Your task to perform on an android device: set an alarm Image 0: 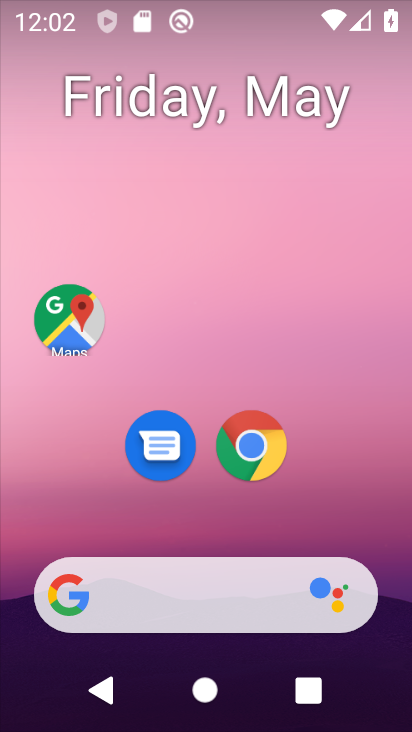
Step 0: drag from (391, 416) to (405, 7)
Your task to perform on an android device: set an alarm Image 1: 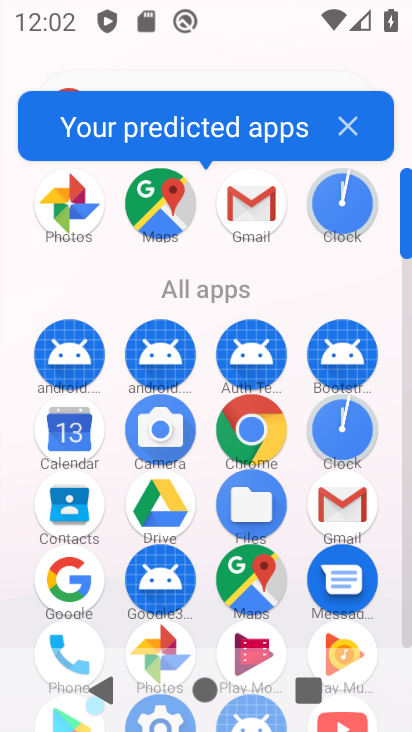
Step 1: click (340, 212)
Your task to perform on an android device: set an alarm Image 2: 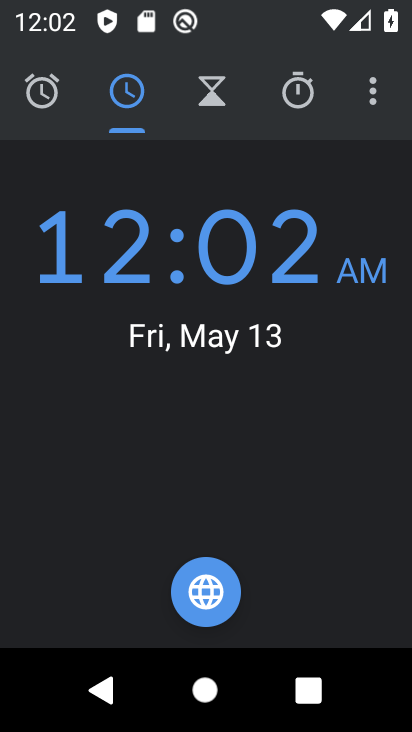
Step 2: click (38, 101)
Your task to perform on an android device: set an alarm Image 3: 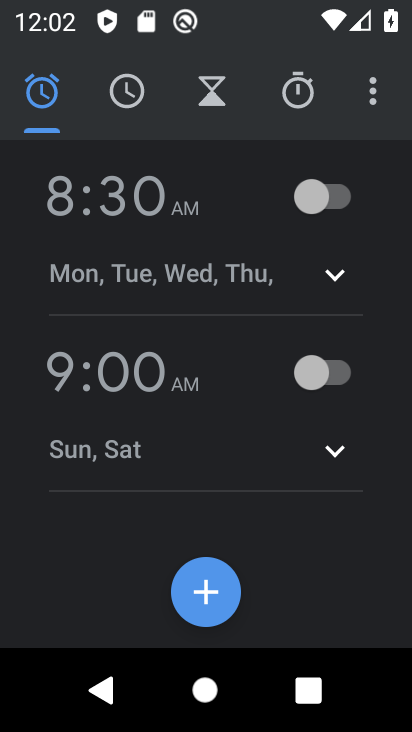
Step 3: click (210, 598)
Your task to perform on an android device: set an alarm Image 4: 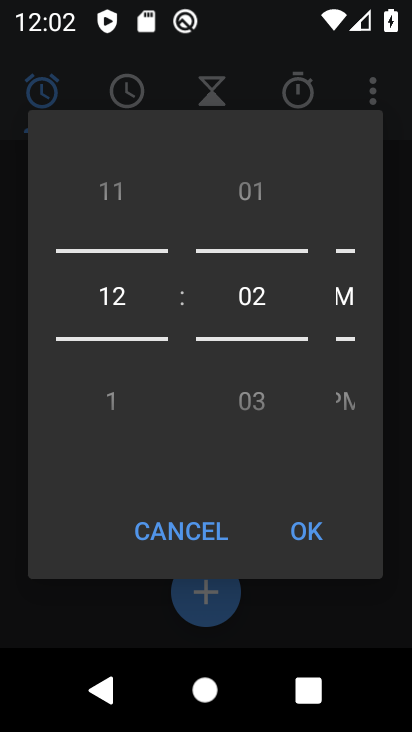
Step 4: drag from (107, 301) to (120, 77)
Your task to perform on an android device: set an alarm Image 5: 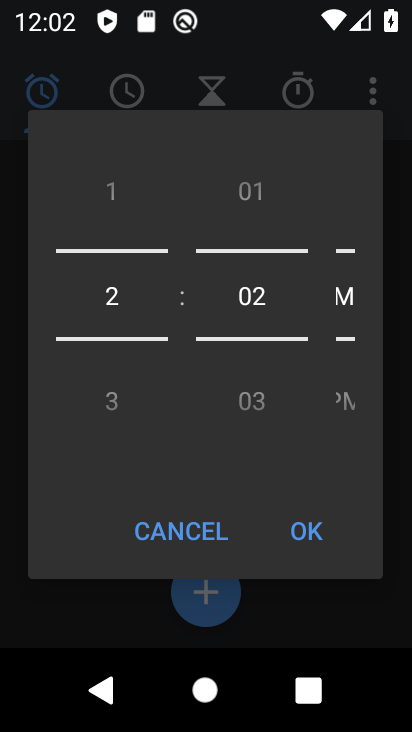
Step 5: drag from (119, 353) to (117, 111)
Your task to perform on an android device: set an alarm Image 6: 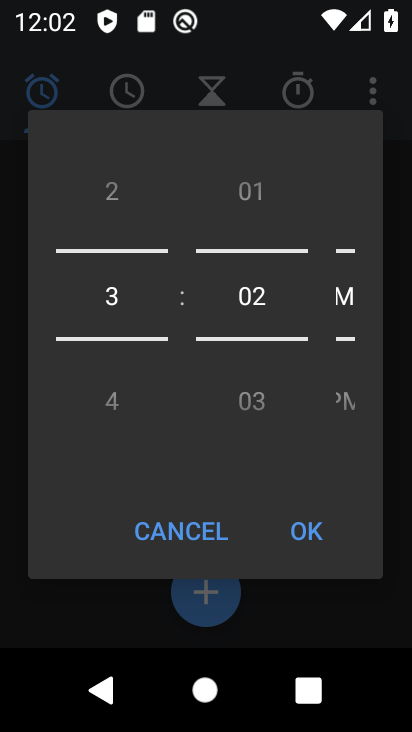
Step 6: drag from (106, 323) to (125, 107)
Your task to perform on an android device: set an alarm Image 7: 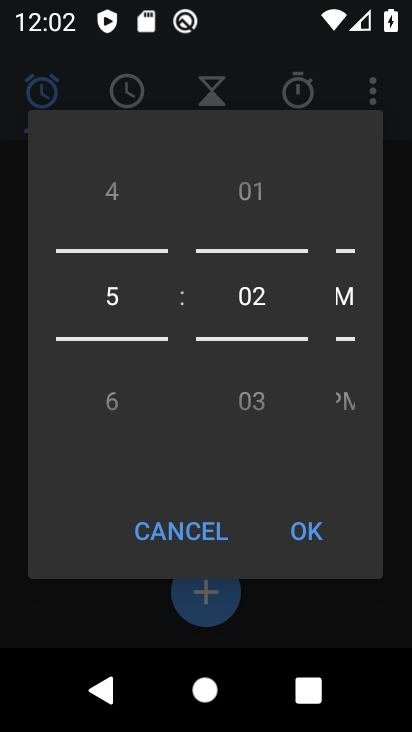
Step 7: drag from (255, 301) to (255, 444)
Your task to perform on an android device: set an alarm Image 8: 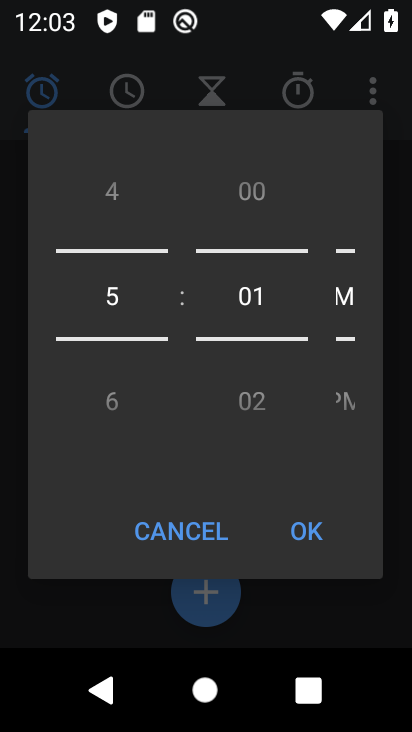
Step 8: drag from (259, 335) to (269, 441)
Your task to perform on an android device: set an alarm Image 9: 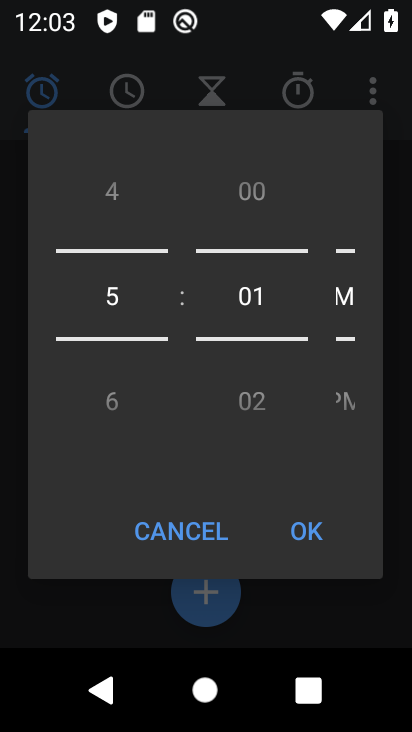
Step 9: drag from (250, 302) to (255, 447)
Your task to perform on an android device: set an alarm Image 10: 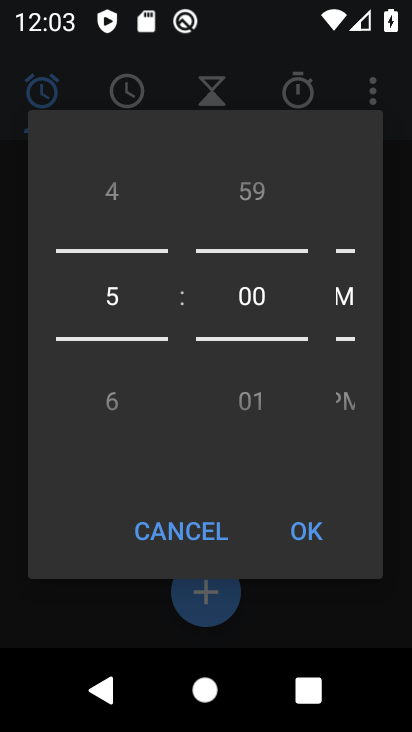
Step 10: click (308, 536)
Your task to perform on an android device: set an alarm Image 11: 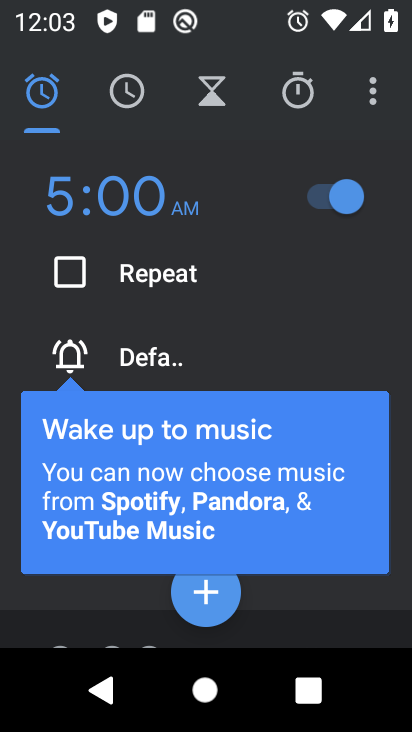
Step 11: task complete